Your task to perform on an android device: delete location history Image 0: 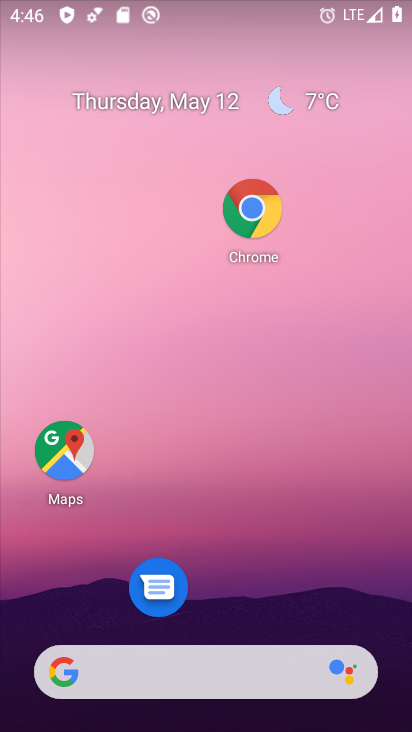
Step 0: drag from (225, 607) to (294, 195)
Your task to perform on an android device: delete location history Image 1: 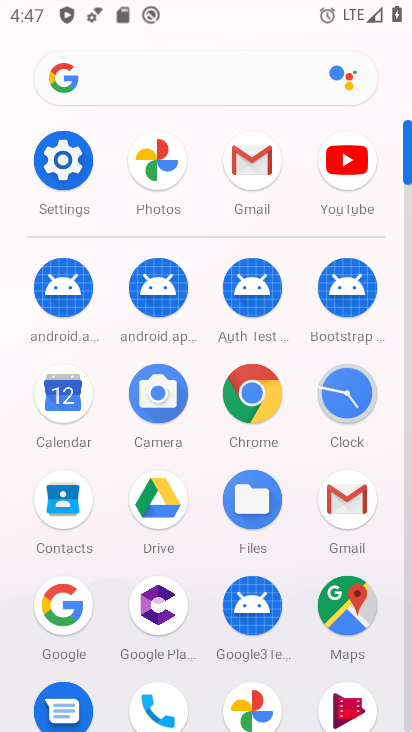
Step 1: click (67, 180)
Your task to perform on an android device: delete location history Image 2: 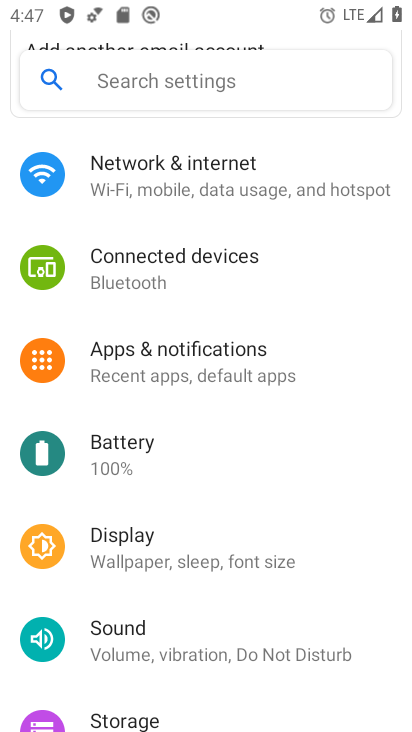
Step 2: drag from (187, 607) to (202, 261)
Your task to perform on an android device: delete location history Image 3: 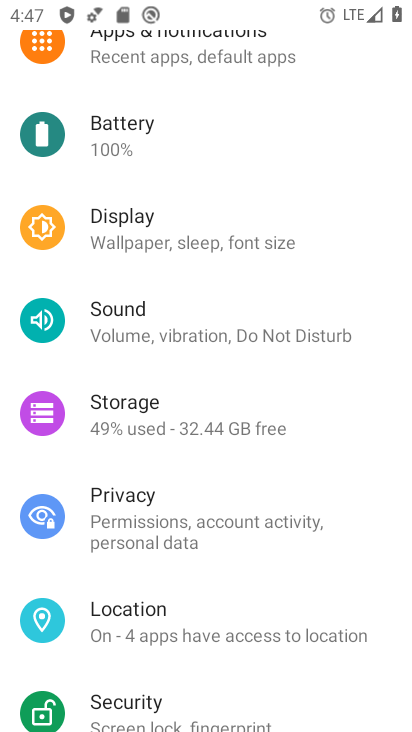
Step 3: click (165, 643)
Your task to perform on an android device: delete location history Image 4: 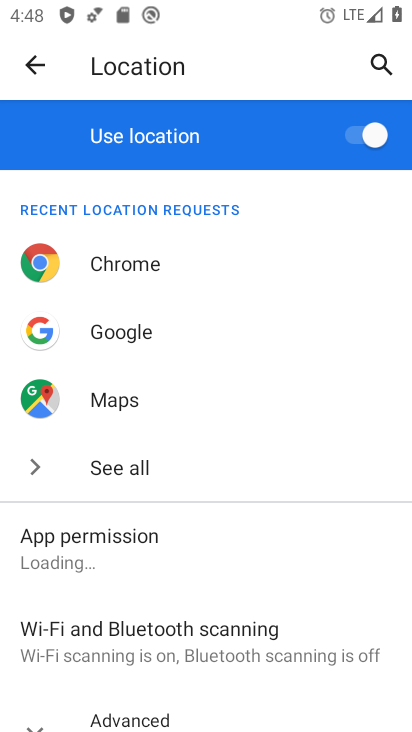
Step 4: drag from (166, 638) to (234, 248)
Your task to perform on an android device: delete location history Image 5: 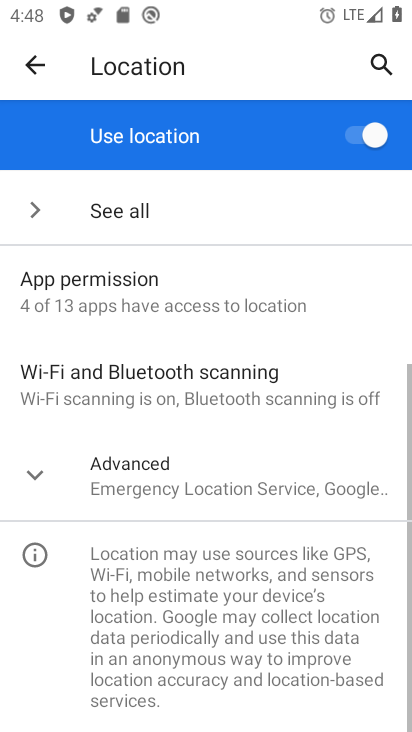
Step 5: click (158, 488)
Your task to perform on an android device: delete location history Image 6: 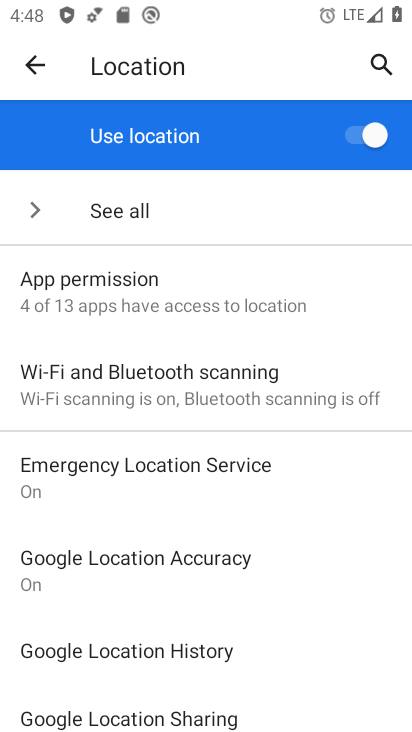
Step 6: drag from (214, 715) to (289, 433)
Your task to perform on an android device: delete location history Image 7: 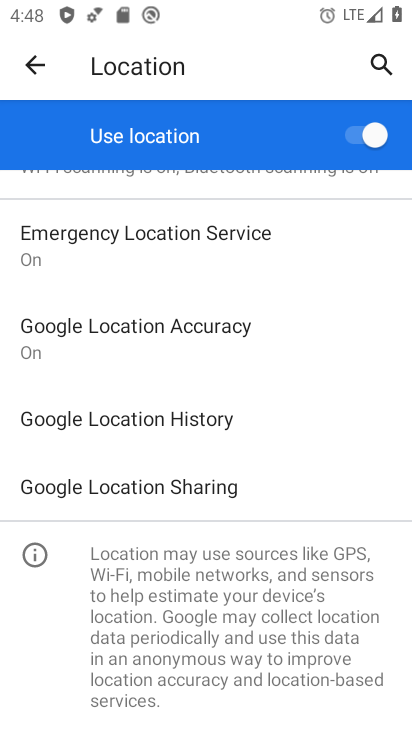
Step 7: click (144, 426)
Your task to perform on an android device: delete location history Image 8: 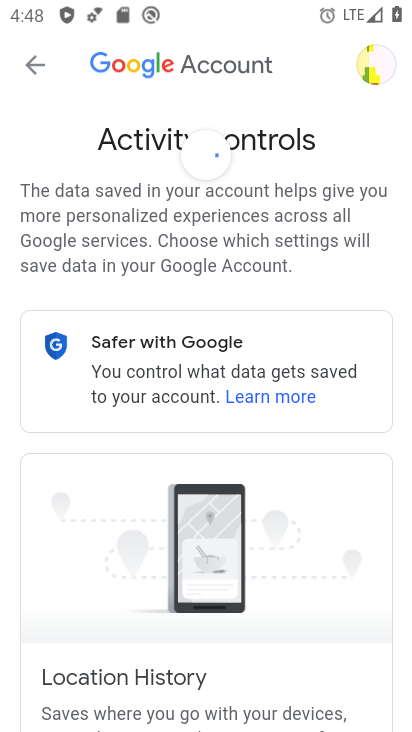
Step 8: drag from (212, 615) to (249, 305)
Your task to perform on an android device: delete location history Image 9: 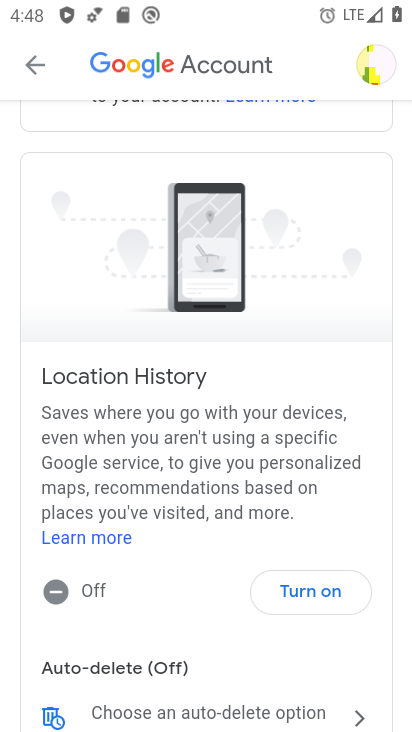
Step 9: drag from (258, 640) to (264, 225)
Your task to perform on an android device: delete location history Image 10: 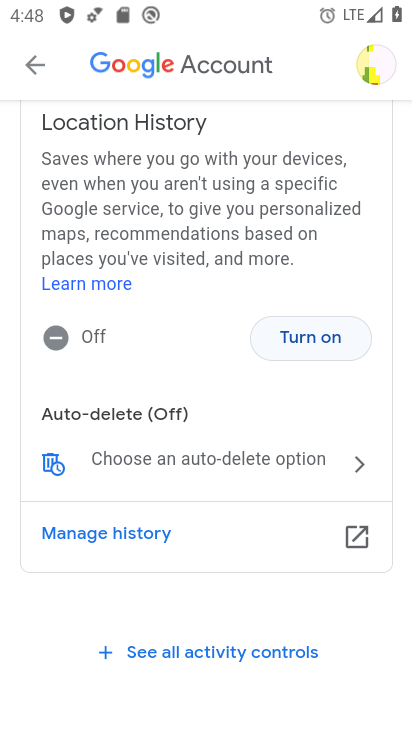
Step 10: click (139, 528)
Your task to perform on an android device: delete location history Image 11: 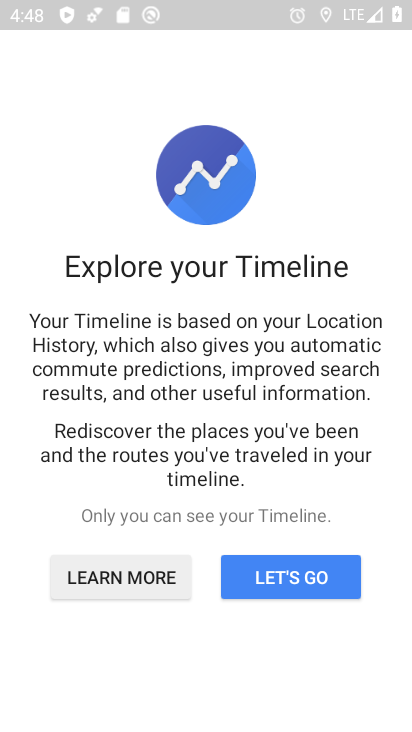
Step 11: click (278, 582)
Your task to perform on an android device: delete location history Image 12: 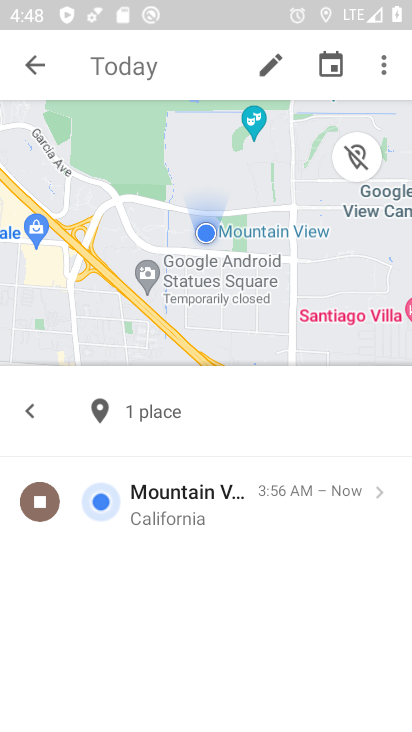
Step 12: click (383, 71)
Your task to perform on an android device: delete location history Image 13: 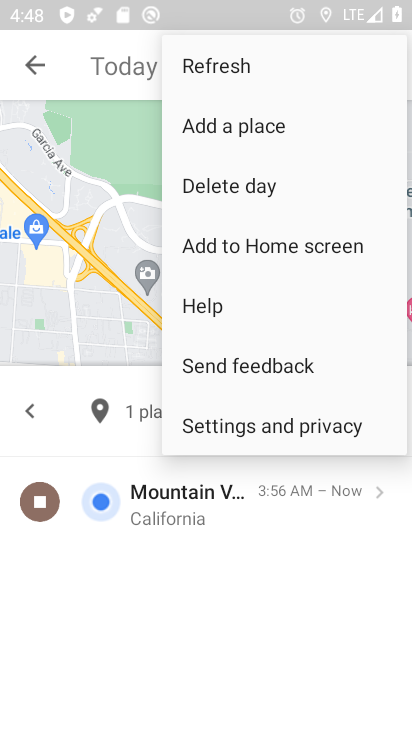
Step 13: click (246, 431)
Your task to perform on an android device: delete location history Image 14: 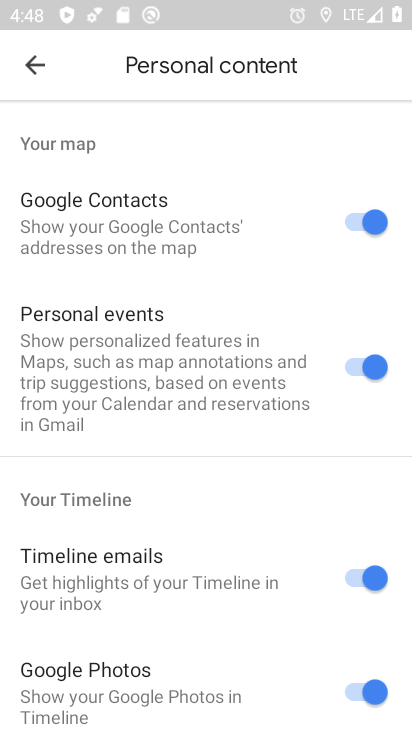
Step 14: drag from (193, 631) to (225, 355)
Your task to perform on an android device: delete location history Image 15: 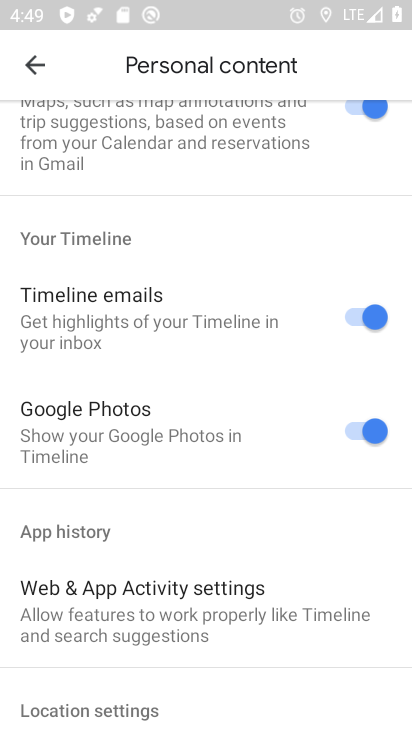
Step 15: drag from (153, 653) to (226, 308)
Your task to perform on an android device: delete location history Image 16: 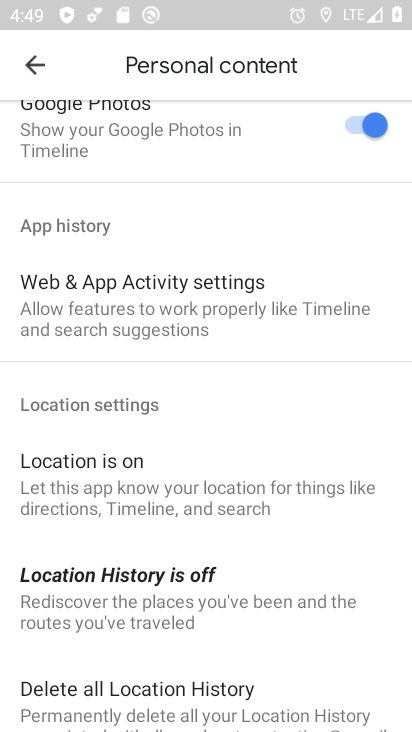
Step 16: click (98, 690)
Your task to perform on an android device: delete location history Image 17: 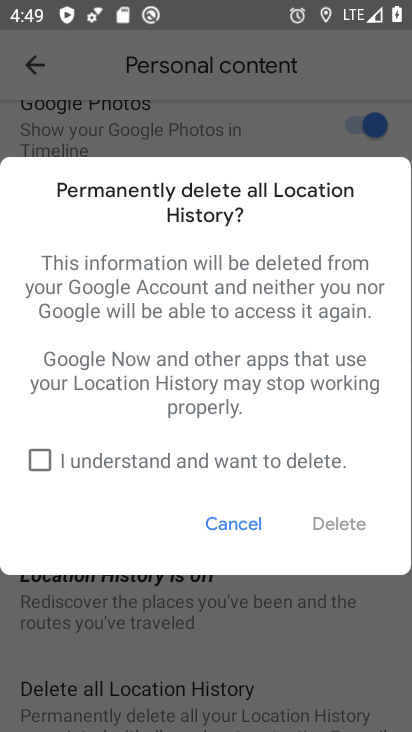
Step 17: click (42, 467)
Your task to perform on an android device: delete location history Image 18: 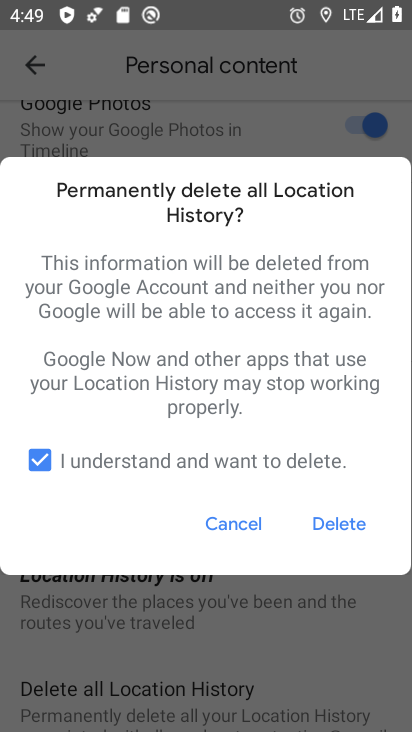
Step 18: click (344, 521)
Your task to perform on an android device: delete location history Image 19: 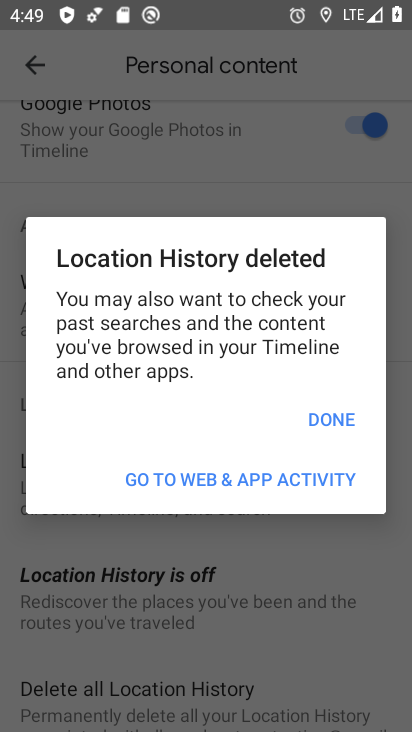
Step 19: click (334, 422)
Your task to perform on an android device: delete location history Image 20: 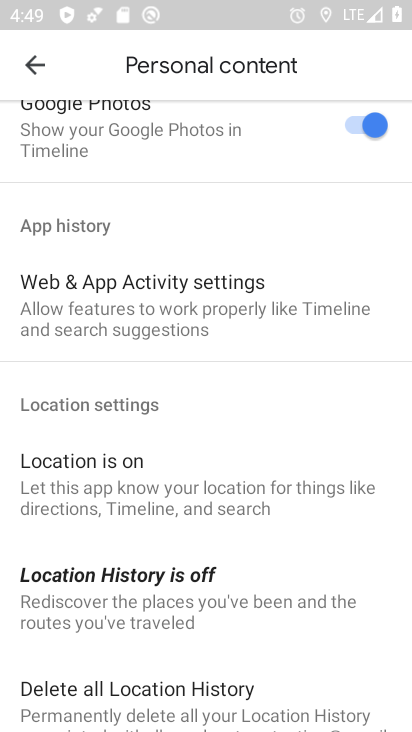
Step 20: task complete